Your task to perform on an android device: Clear the cart on amazon.com. Search for "panasonic triple a" on amazon.com, select the first entry, and add it to the cart. Image 0: 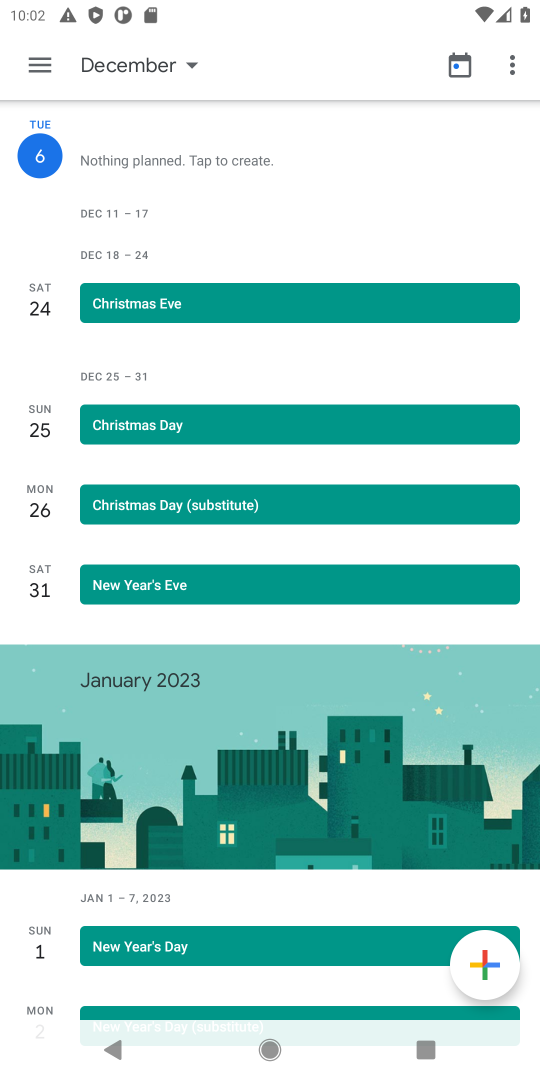
Step 0: task complete